Your task to perform on an android device: install app "Gmail" Image 0: 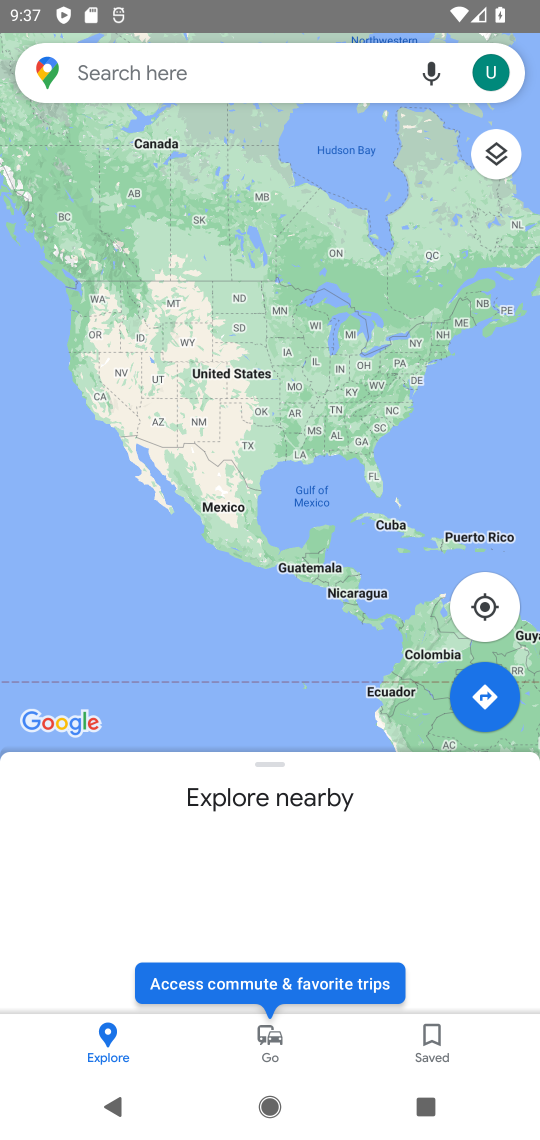
Step 0: press back button
Your task to perform on an android device: install app "Gmail" Image 1: 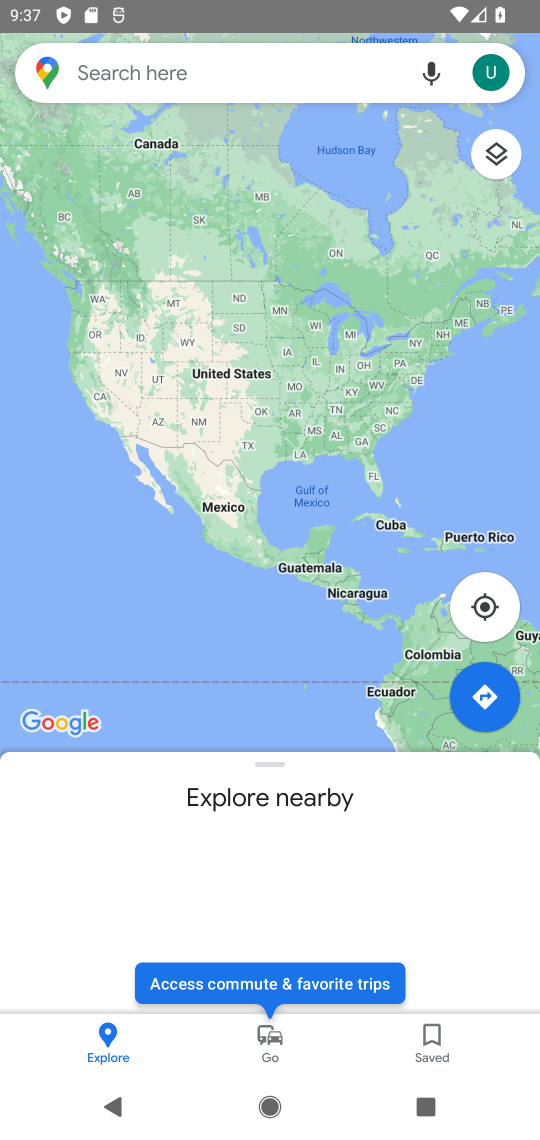
Step 1: press back button
Your task to perform on an android device: install app "Gmail" Image 2: 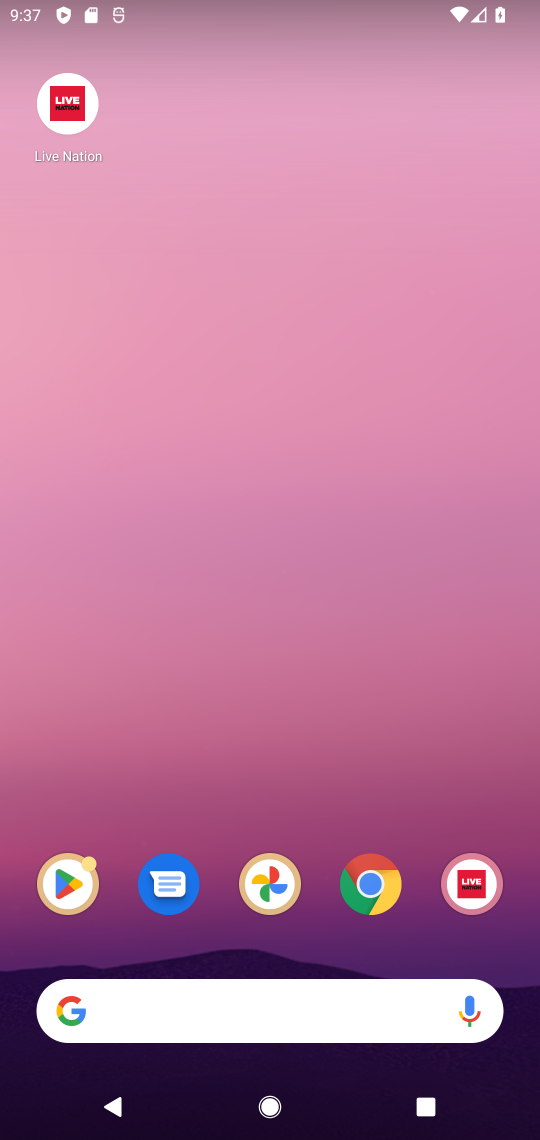
Step 2: click (339, 421)
Your task to perform on an android device: install app "Gmail" Image 3: 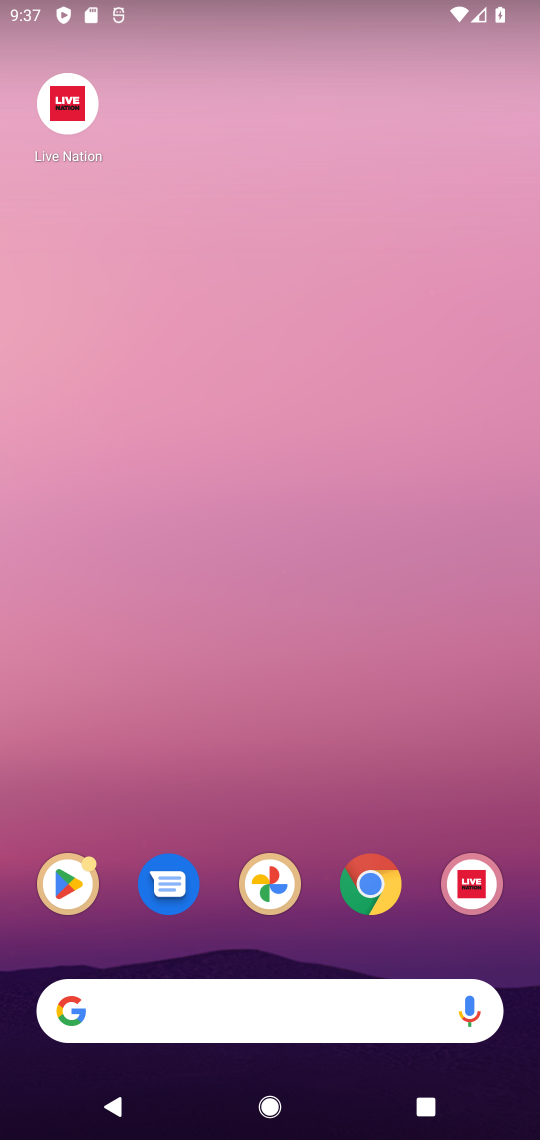
Step 3: drag from (325, 851) to (267, 531)
Your task to perform on an android device: install app "Gmail" Image 4: 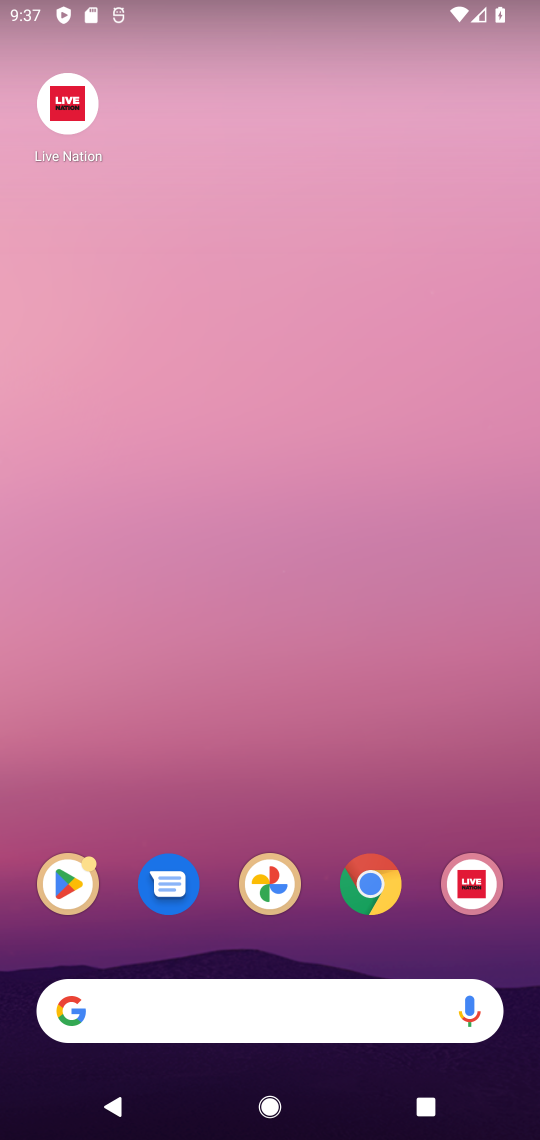
Step 4: click (351, 498)
Your task to perform on an android device: install app "Gmail" Image 5: 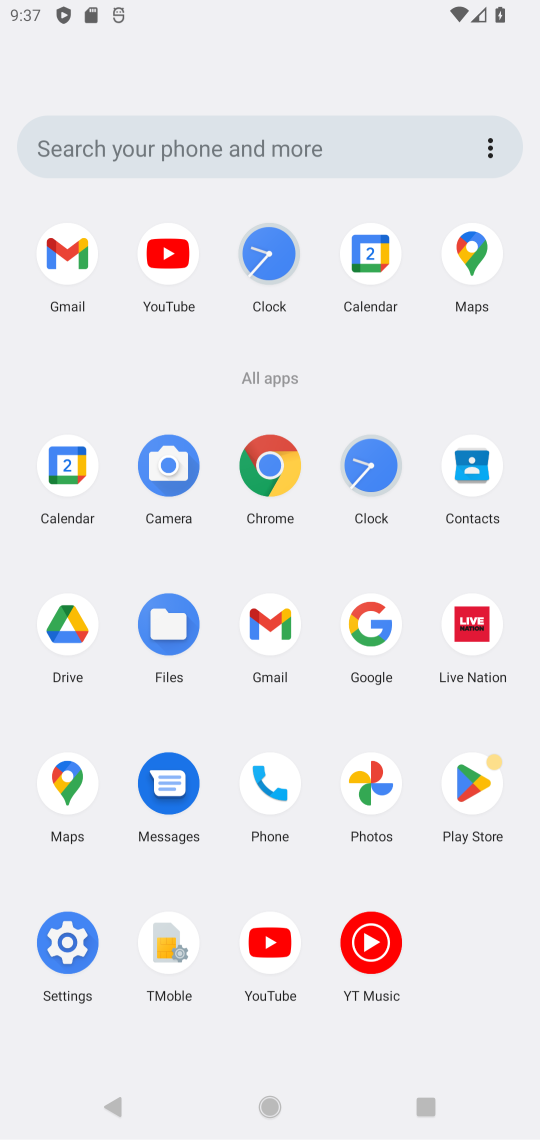
Step 5: drag from (353, 812) to (296, 595)
Your task to perform on an android device: install app "Gmail" Image 6: 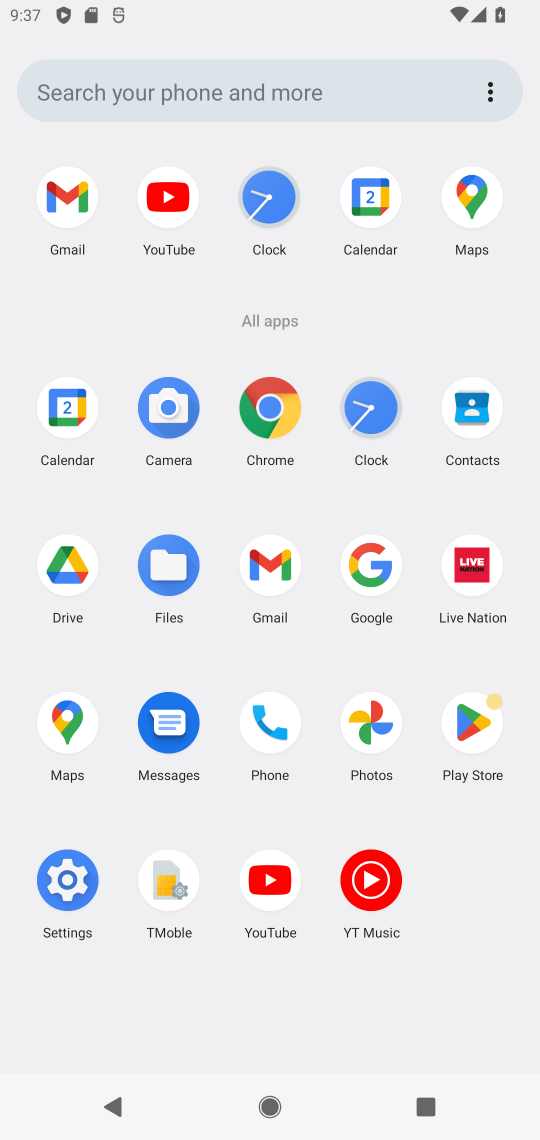
Step 6: click (455, 716)
Your task to perform on an android device: install app "Gmail" Image 7: 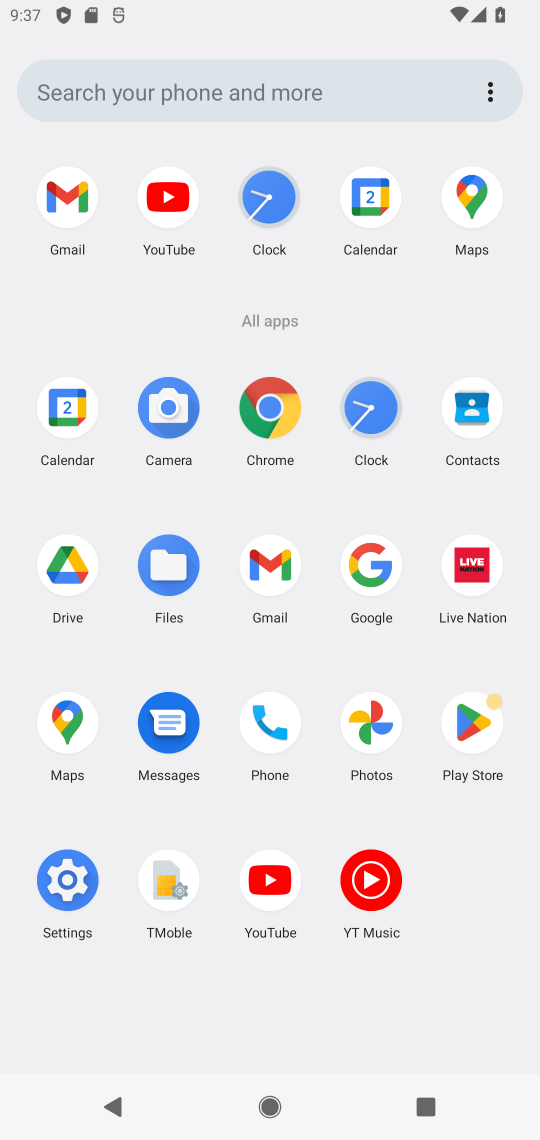
Step 7: click (455, 716)
Your task to perform on an android device: install app "Gmail" Image 8: 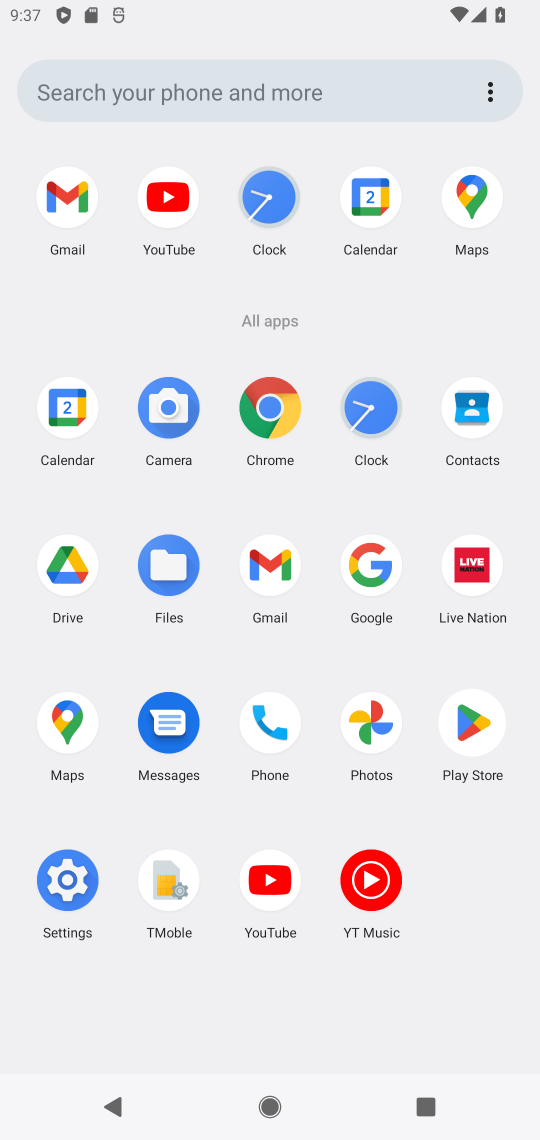
Step 8: click (459, 716)
Your task to perform on an android device: install app "Gmail" Image 9: 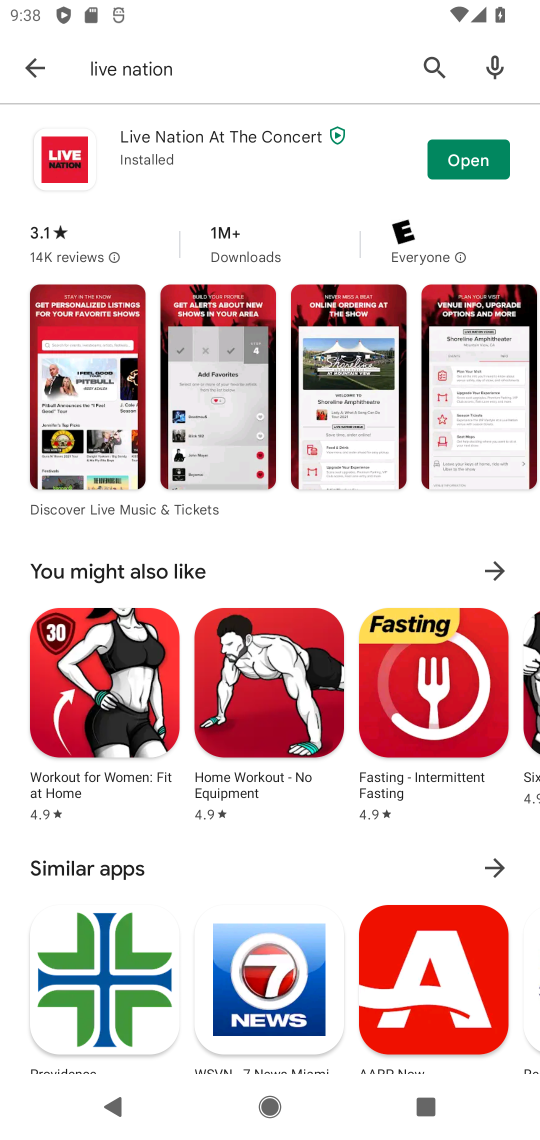
Step 9: click (451, 151)
Your task to perform on an android device: install app "Gmail" Image 10: 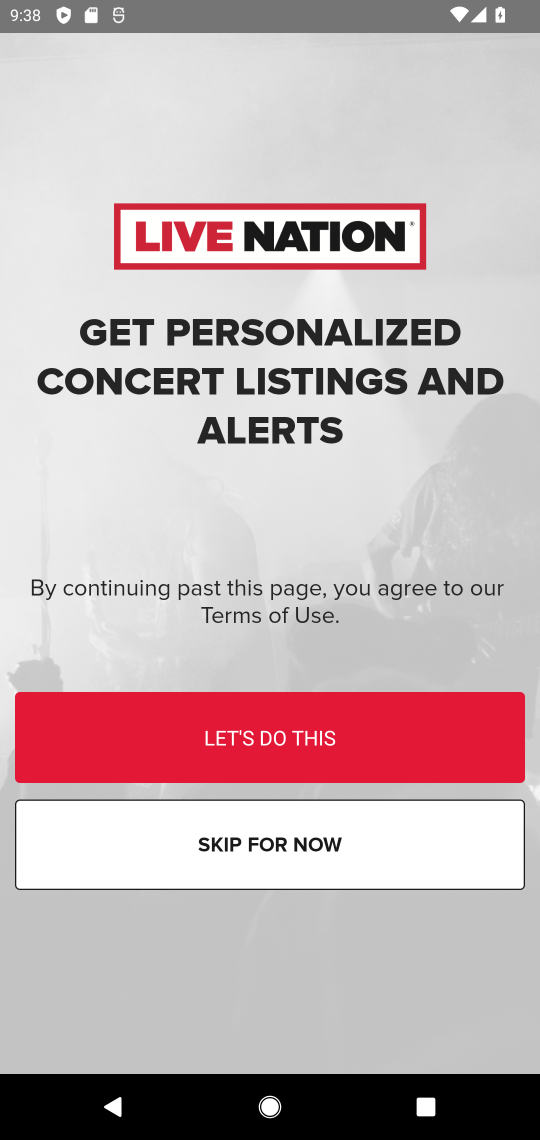
Step 10: task complete